Your task to perform on an android device: What is the news today? Image 0: 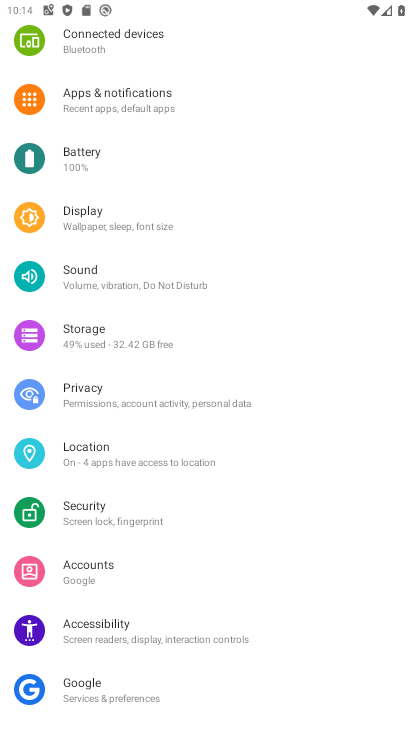
Step 0: press home button
Your task to perform on an android device: What is the news today? Image 1: 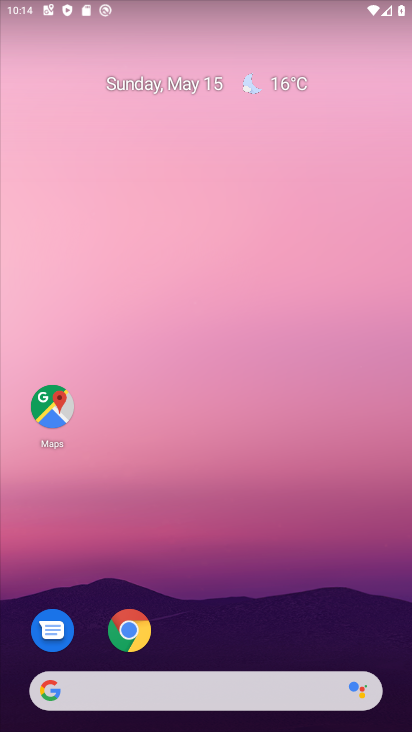
Step 1: drag from (224, 635) to (229, 127)
Your task to perform on an android device: What is the news today? Image 2: 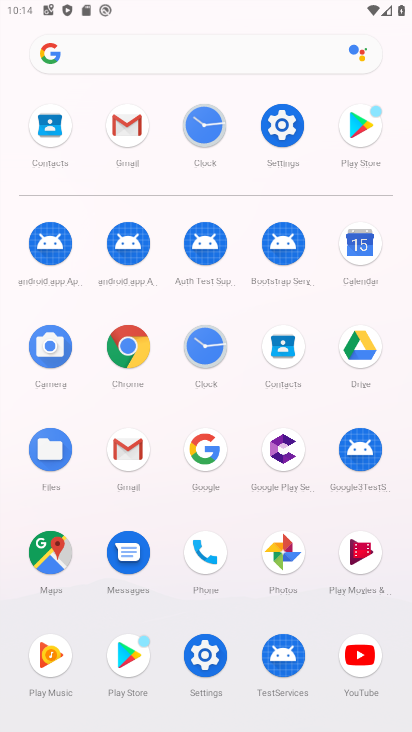
Step 2: click (200, 458)
Your task to perform on an android device: What is the news today? Image 3: 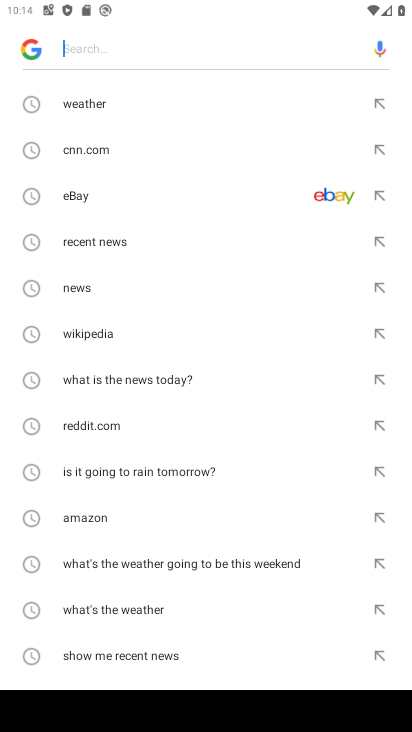
Step 3: click (126, 299)
Your task to perform on an android device: What is the news today? Image 4: 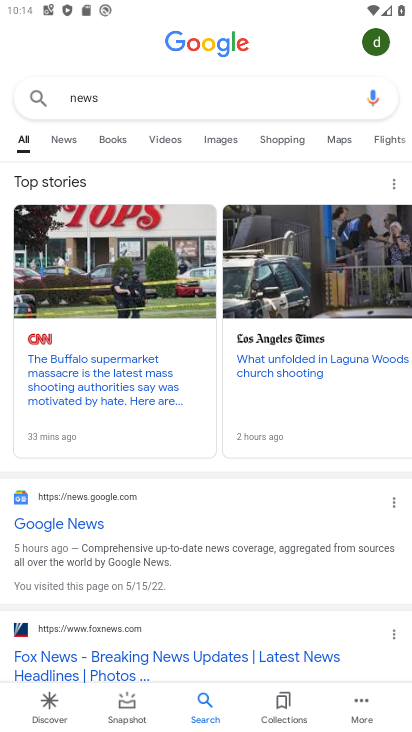
Step 4: click (65, 126)
Your task to perform on an android device: What is the news today? Image 5: 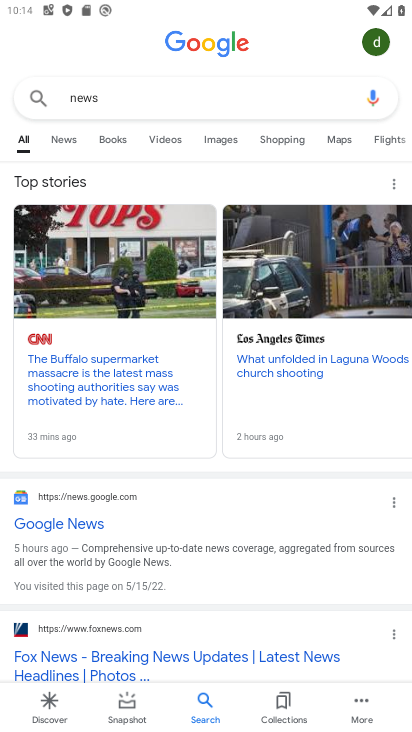
Step 5: click (74, 139)
Your task to perform on an android device: What is the news today? Image 6: 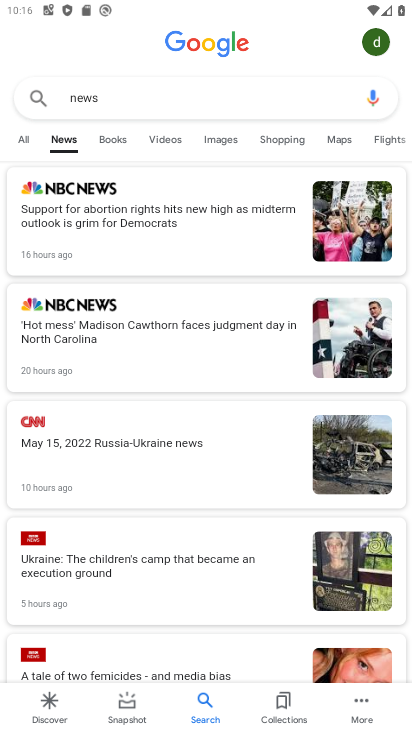
Step 6: task complete